Your task to perform on an android device: Go to display settings Image 0: 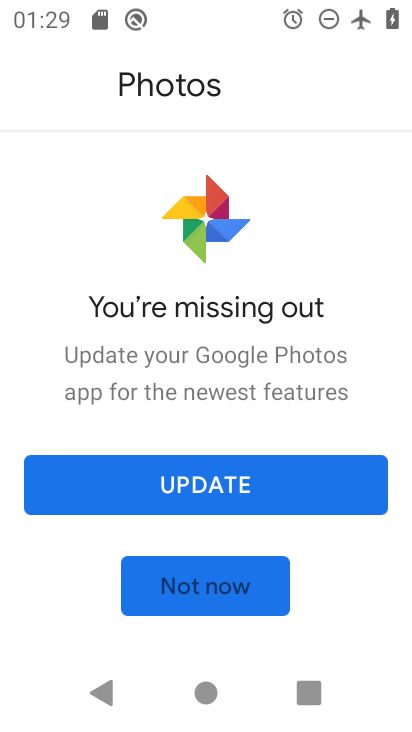
Step 0: press home button
Your task to perform on an android device: Go to display settings Image 1: 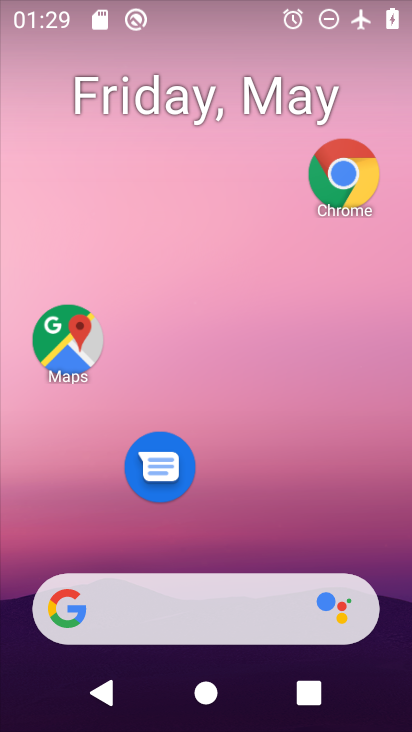
Step 1: drag from (274, 475) to (271, 208)
Your task to perform on an android device: Go to display settings Image 2: 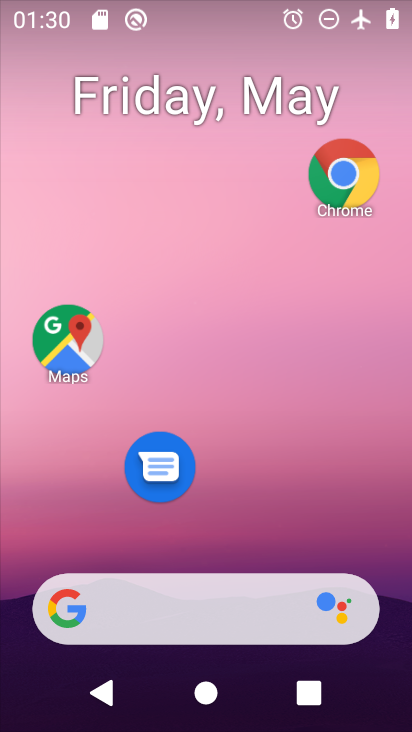
Step 2: drag from (219, 545) to (251, 235)
Your task to perform on an android device: Go to display settings Image 3: 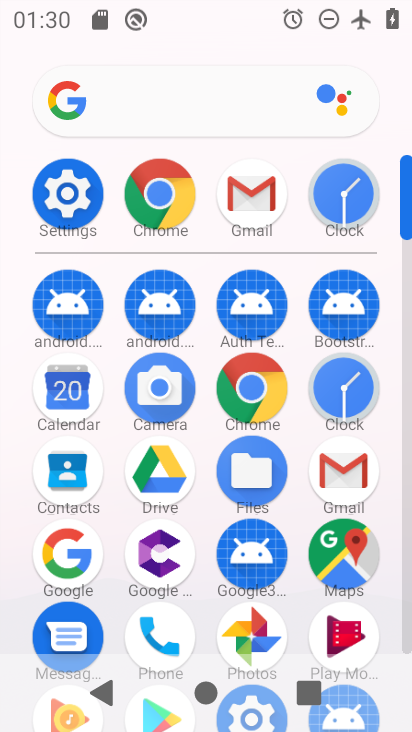
Step 3: click (63, 186)
Your task to perform on an android device: Go to display settings Image 4: 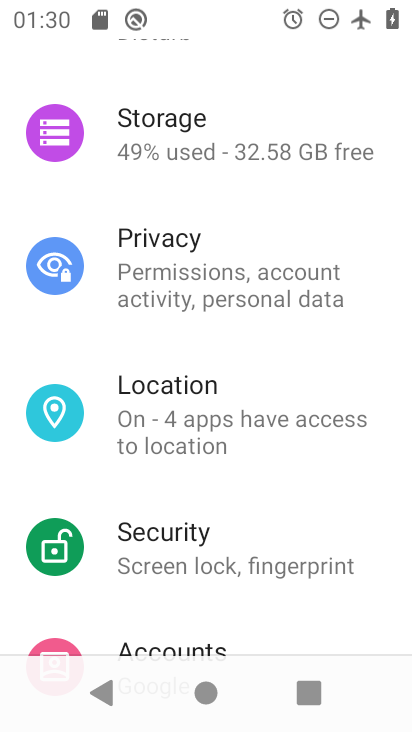
Step 4: drag from (218, 557) to (284, 156)
Your task to perform on an android device: Go to display settings Image 5: 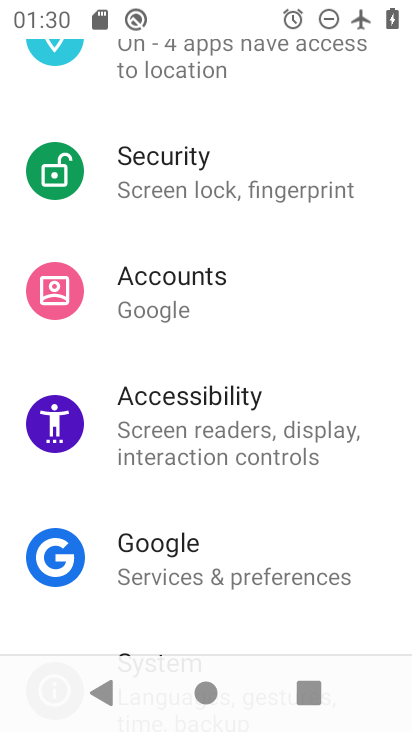
Step 5: drag from (254, 163) to (208, 553)
Your task to perform on an android device: Go to display settings Image 6: 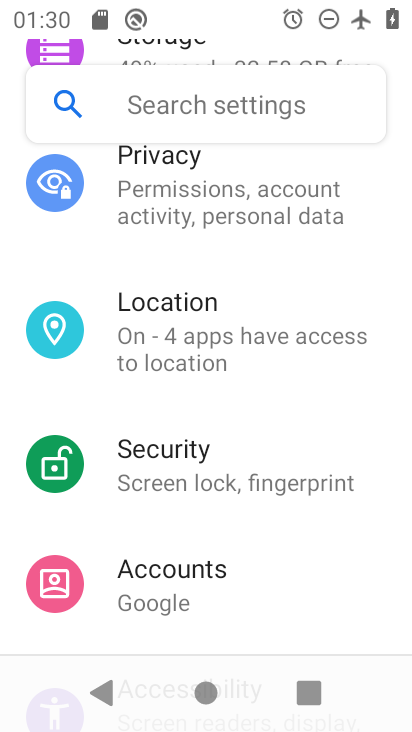
Step 6: drag from (228, 212) to (198, 536)
Your task to perform on an android device: Go to display settings Image 7: 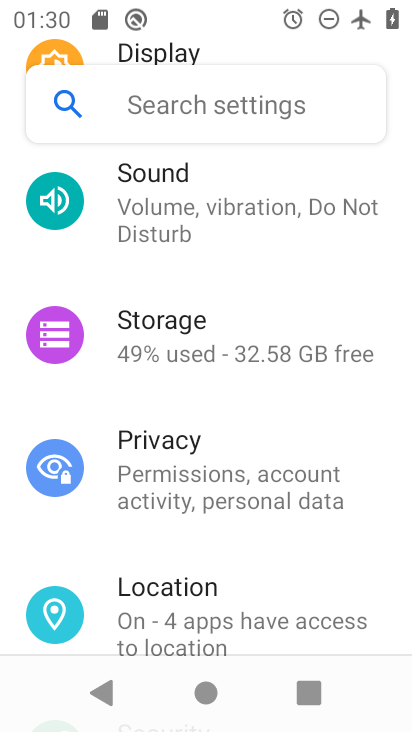
Step 7: drag from (193, 225) to (211, 512)
Your task to perform on an android device: Go to display settings Image 8: 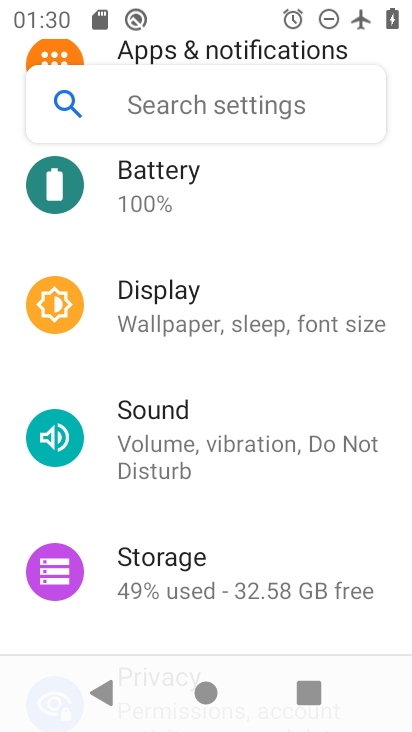
Step 8: click (172, 311)
Your task to perform on an android device: Go to display settings Image 9: 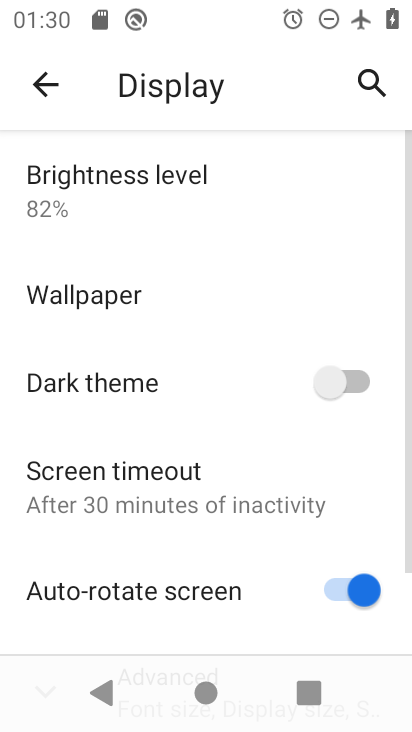
Step 9: task complete